Your task to perform on an android device: Open the phone app and click the voicemail tab. Image 0: 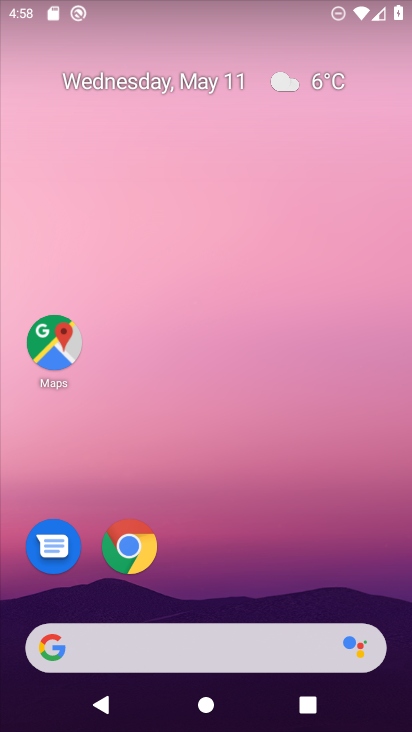
Step 0: drag from (250, 625) to (249, 265)
Your task to perform on an android device: Open the phone app and click the voicemail tab. Image 1: 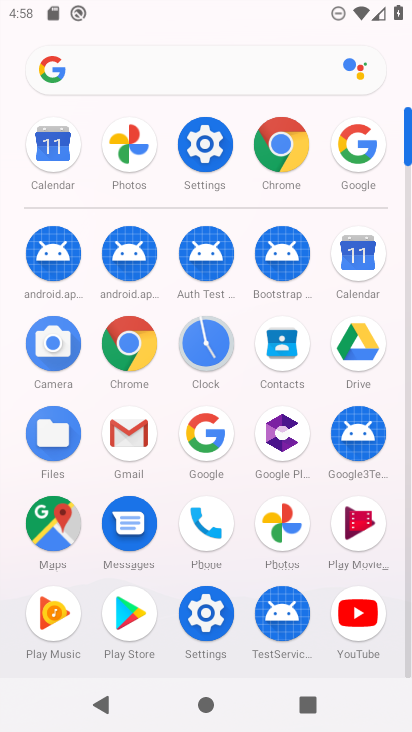
Step 1: click (211, 542)
Your task to perform on an android device: Open the phone app and click the voicemail tab. Image 2: 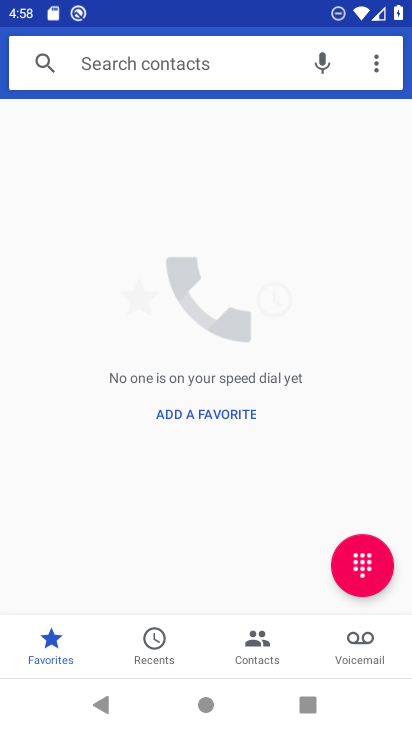
Step 2: click (358, 639)
Your task to perform on an android device: Open the phone app and click the voicemail tab. Image 3: 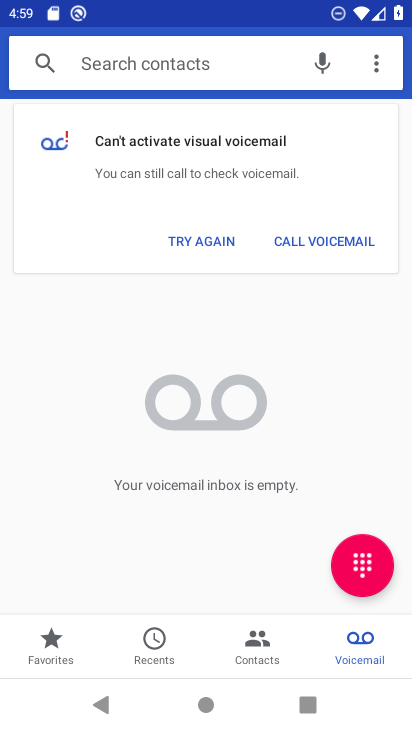
Step 3: task complete